Your task to perform on an android device: clear all cookies in the chrome app Image 0: 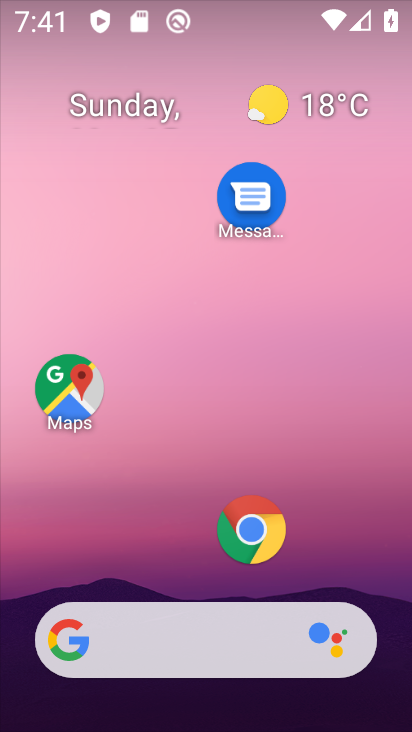
Step 0: click (248, 540)
Your task to perform on an android device: clear all cookies in the chrome app Image 1: 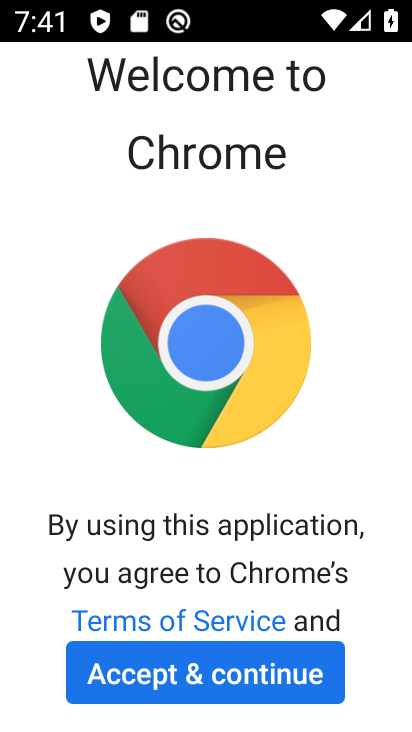
Step 1: click (180, 674)
Your task to perform on an android device: clear all cookies in the chrome app Image 2: 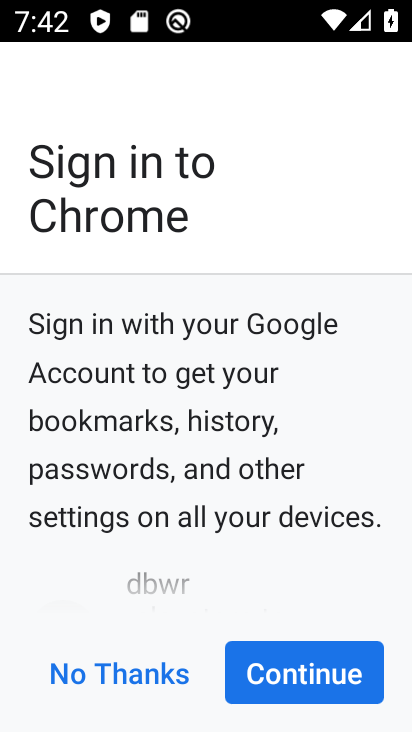
Step 2: click (276, 678)
Your task to perform on an android device: clear all cookies in the chrome app Image 3: 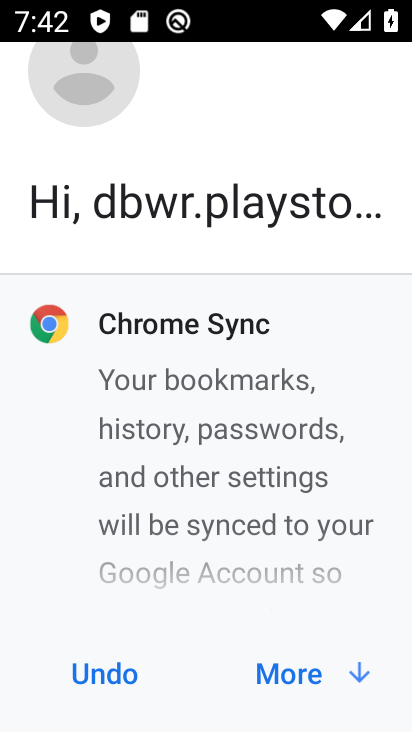
Step 3: click (276, 678)
Your task to perform on an android device: clear all cookies in the chrome app Image 4: 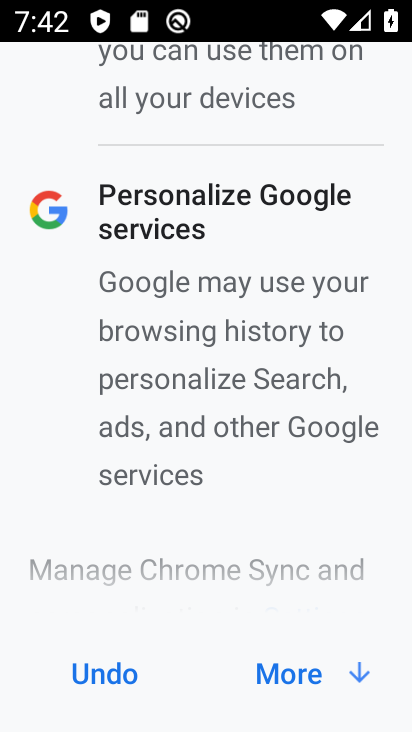
Step 4: click (311, 675)
Your task to perform on an android device: clear all cookies in the chrome app Image 5: 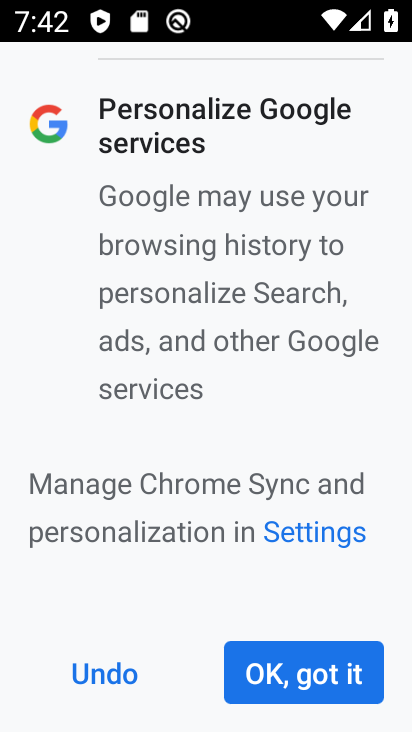
Step 5: click (288, 683)
Your task to perform on an android device: clear all cookies in the chrome app Image 6: 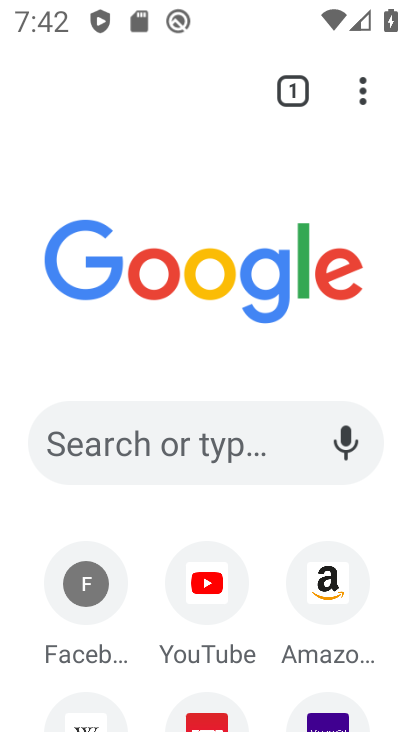
Step 6: click (361, 92)
Your task to perform on an android device: clear all cookies in the chrome app Image 7: 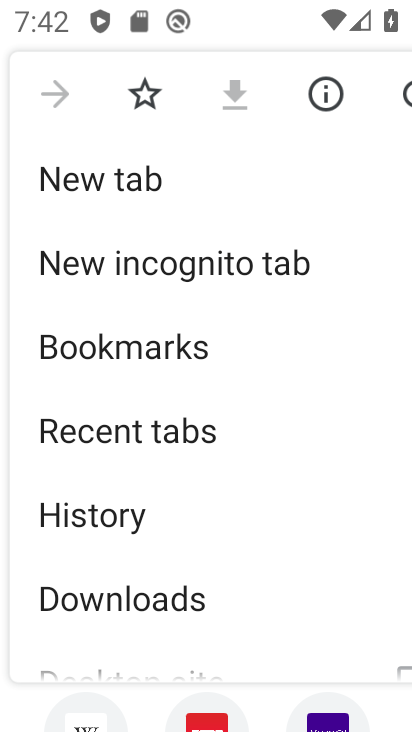
Step 7: click (140, 519)
Your task to perform on an android device: clear all cookies in the chrome app Image 8: 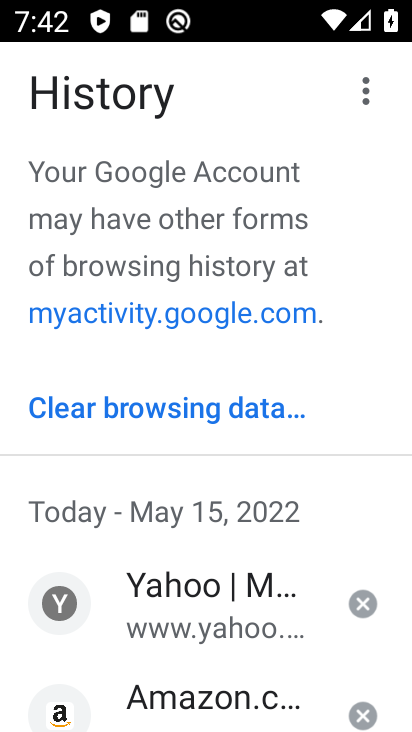
Step 8: click (173, 416)
Your task to perform on an android device: clear all cookies in the chrome app Image 9: 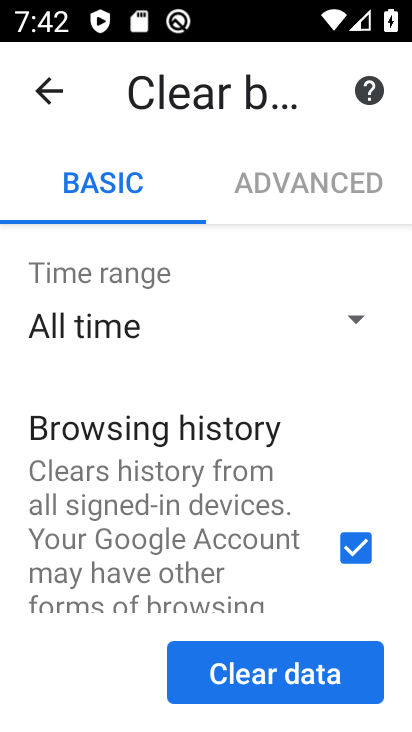
Step 9: click (354, 556)
Your task to perform on an android device: clear all cookies in the chrome app Image 10: 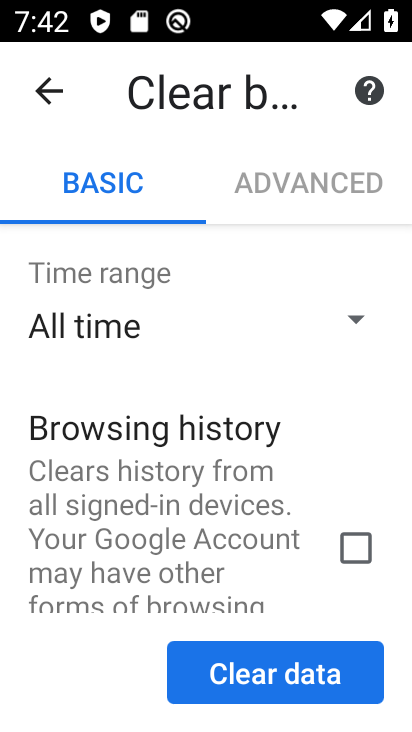
Step 10: drag from (278, 603) to (293, 290)
Your task to perform on an android device: clear all cookies in the chrome app Image 11: 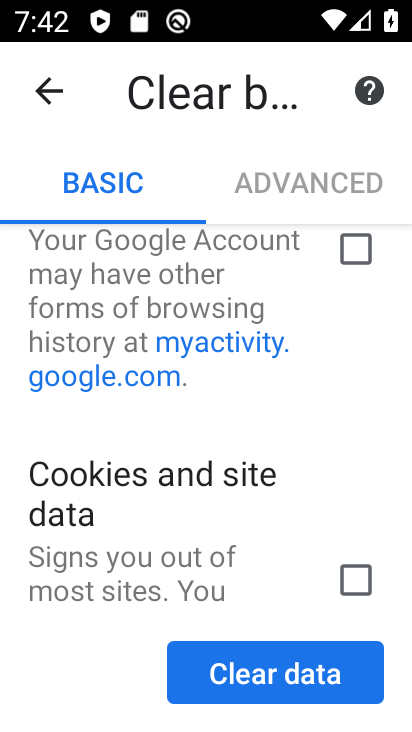
Step 11: click (363, 584)
Your task to perform on an android device: clear all cookies in the chrome app Image 12: 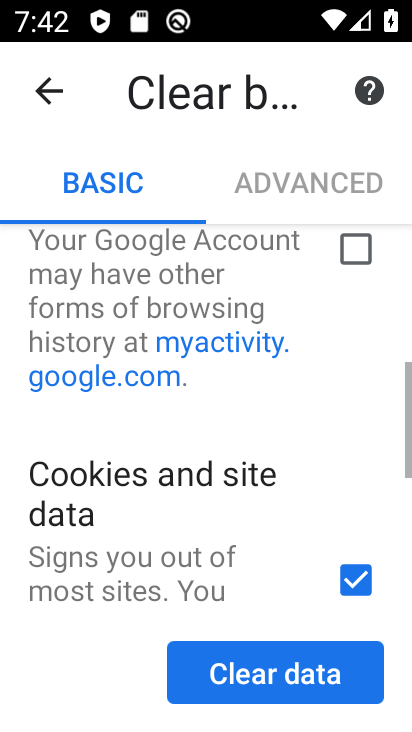
Step 12: drag from (248, 615) to (281, 329)
Your task to perform on an android device: clear all cookies in the chrome app Image 13: 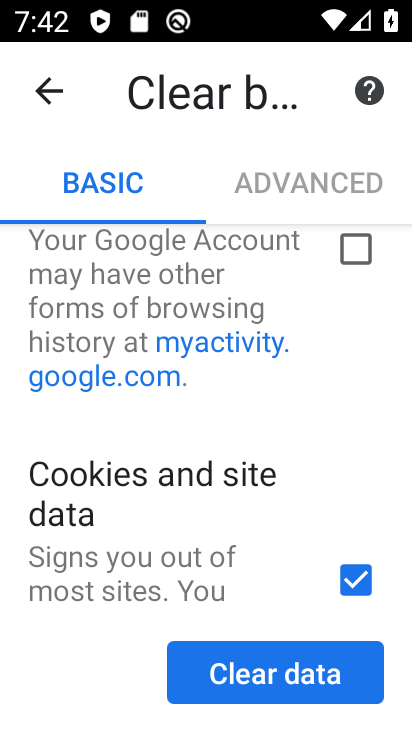
Step 13: click (272, 377)
Your task to perform on an android device: clear all cookies in the chrome app Image 14: 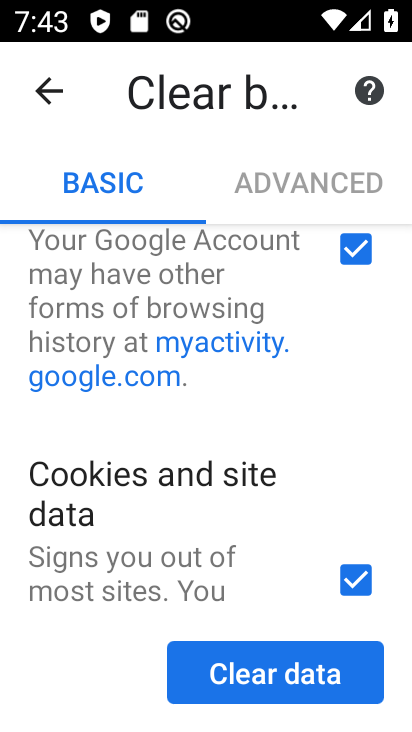
Step 14: drag from (222, 516) to (358, 240)
Your task to perform on an android device: clear all cookies in the chrome app Image 15: 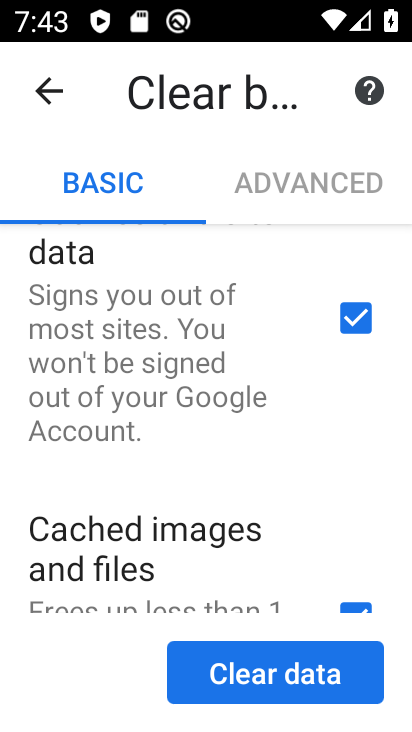
Step 15: click (358, 603)
Your task to perform on an android device: clear all cookies in the chrome app Image 16: 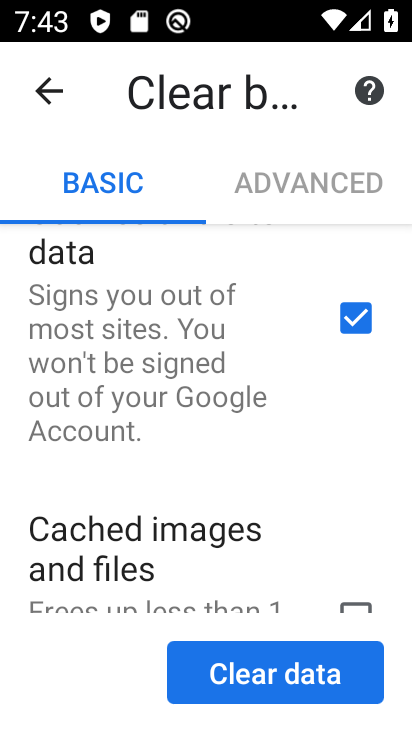
Step 16: click (282, 668)
Your task to perform on an android device: clear all cookies in the chrome app Image 17: 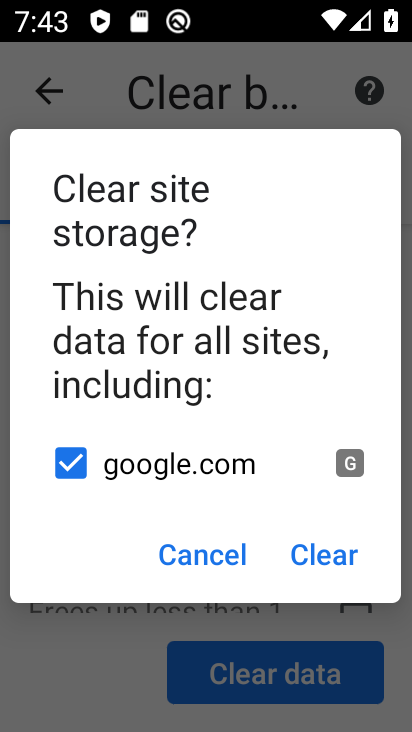
Step 17: click (349, 564)
Your task to perform on an android device: clear all cookies in the chrome app Image 18: 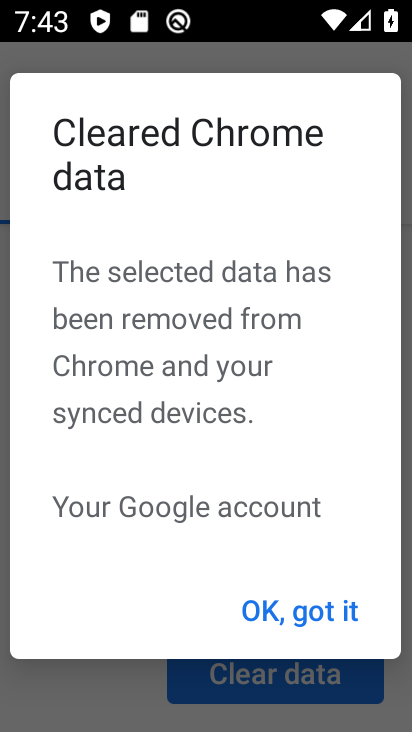
Step 18: click (335, 610)
Your task to perform on an android device: clear all cookies in the chrome app Image 19: 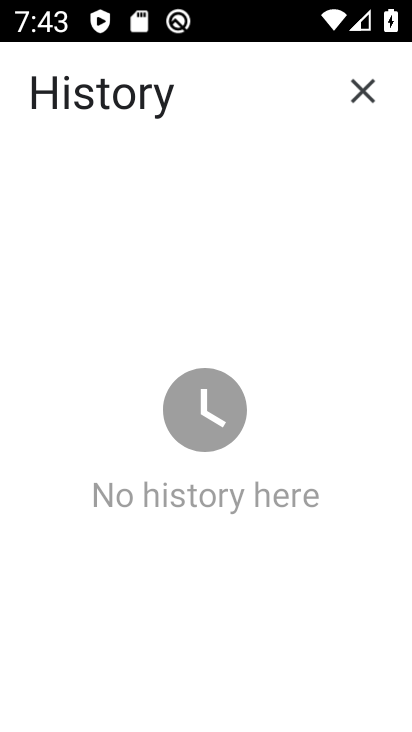
Step 19: task complete